Your task to perform on an android device: install app "Pinterest" Image 0: 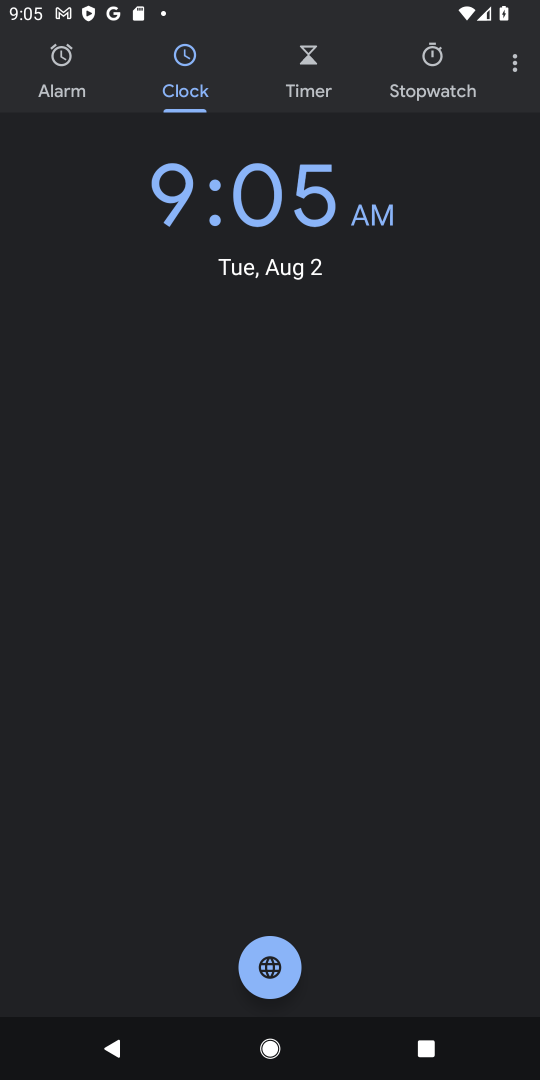
Step 0: press back button
Your task to perform on an android device: install app "Pinterest" Image 1: 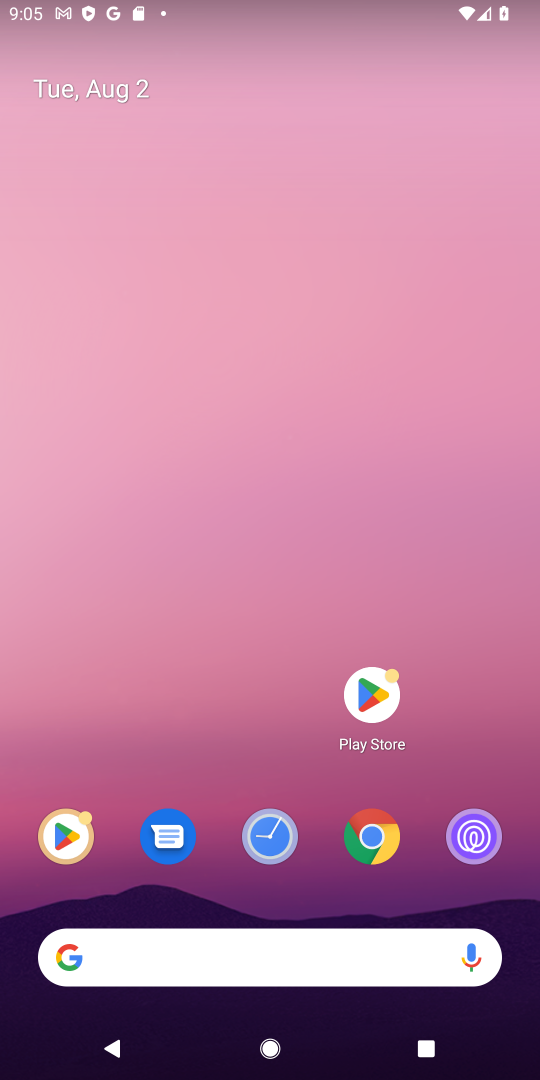
Step 1: drag from (253, 933) to (143, 362)
Your task to perform on an android device: install app "Pinterest" Image 2: 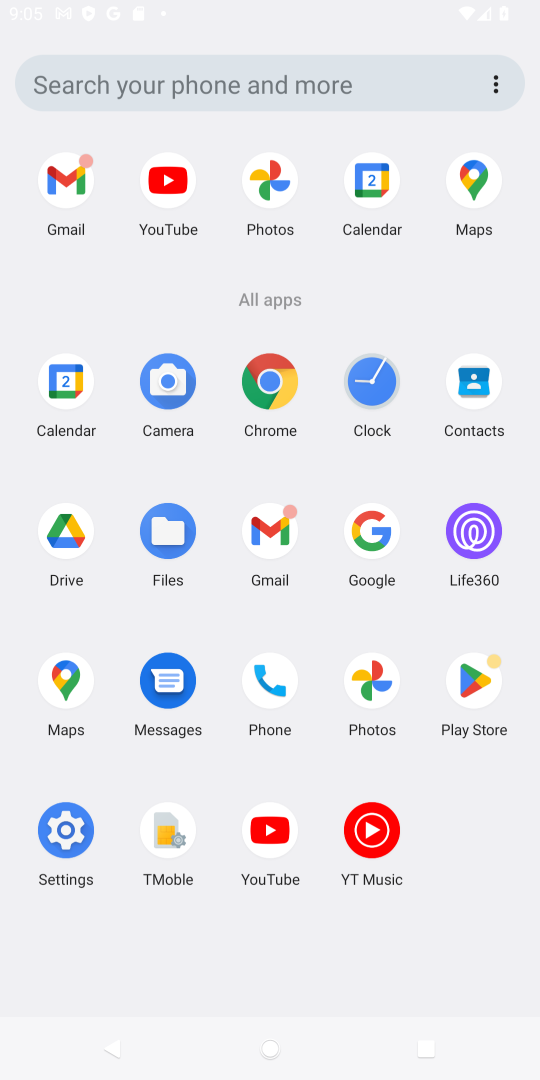
Step 2: drag from (285, 797) to (285, 288)
Your task to perform on an android device: install app "Pinterest" Image 3: 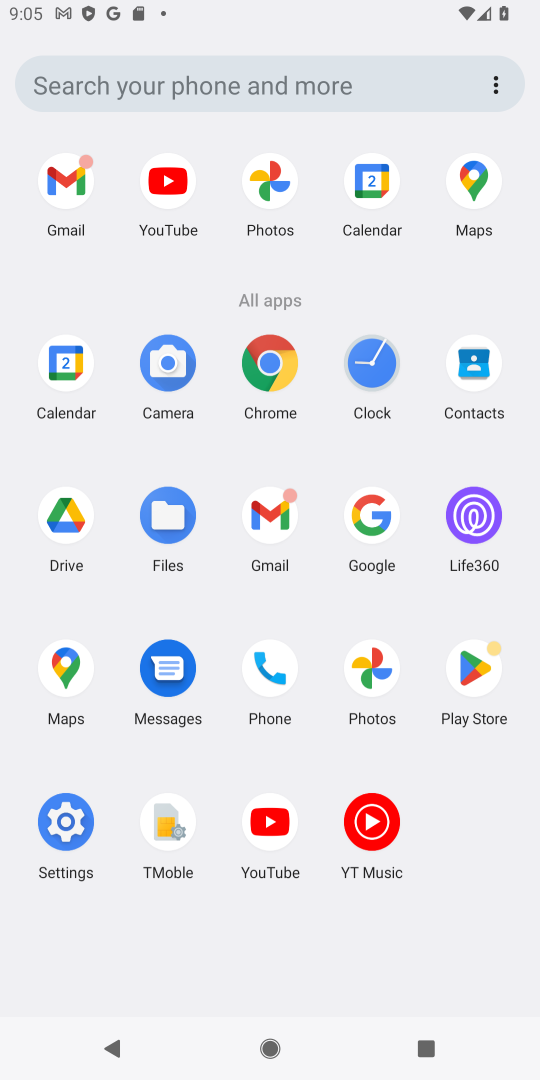
Step 3: drag from (262, 361) to (241, 150)
Your task to perform on an android device: install app "Pinterest" Image 4: 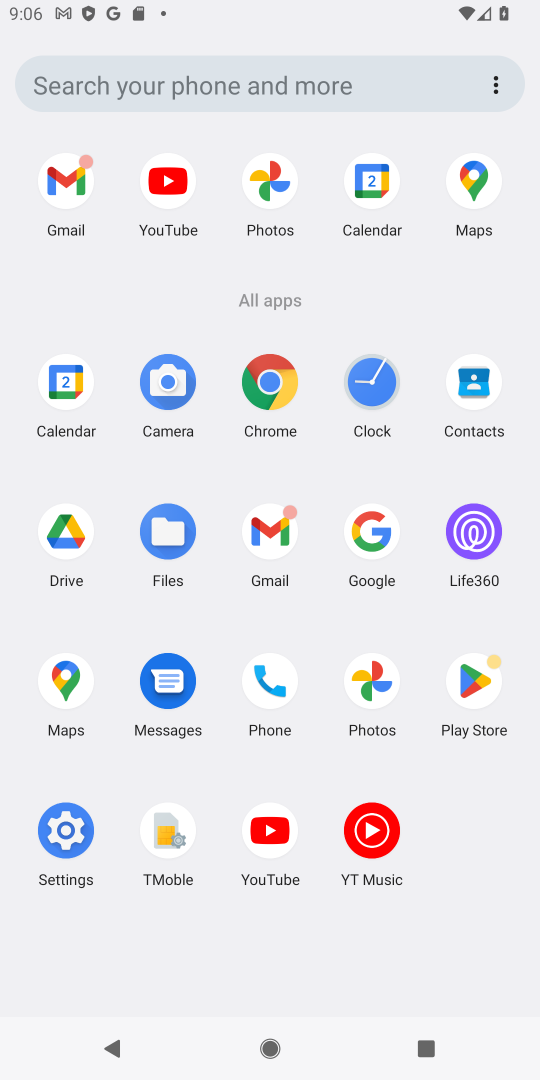
Step 4: click (465, 687)
Your task to perform on an android device: install app "Pinterest" Image 5: 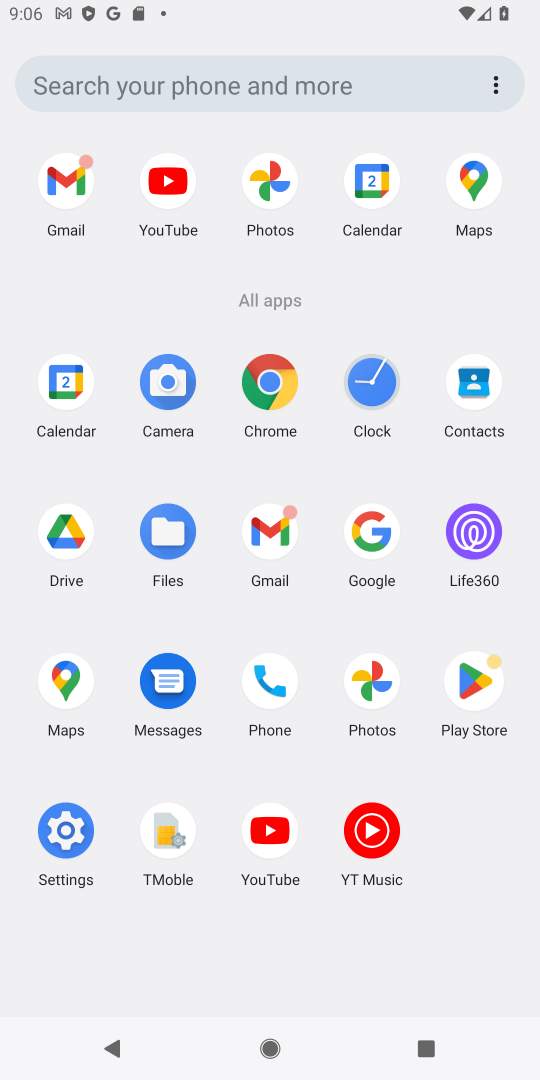
Step 5: click (467, 686)
Your task to perform on an android device: install app "Pinterest" Image 6: 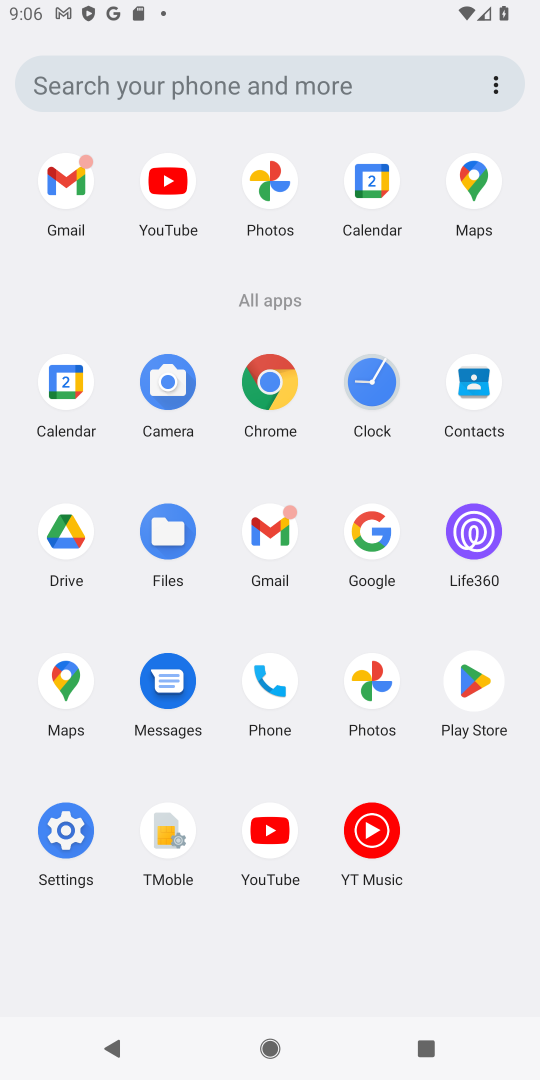
Step 6: click (468, 690)
Your task to perform on an android device: install app "Pinterest" Image 7: 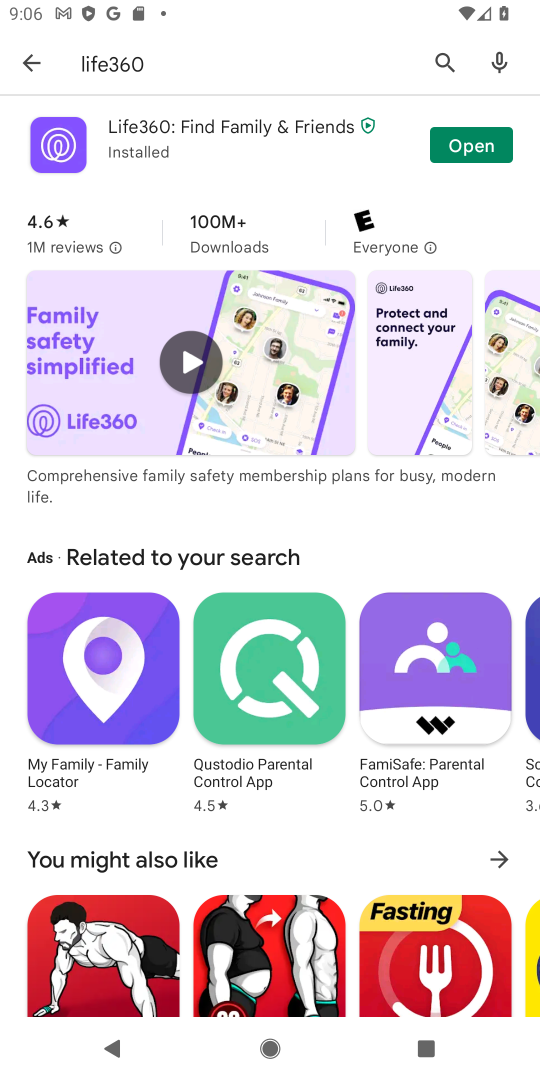
Step 7: click (468, 690)
Your task to perform on an android device: install app "Pinterest" Image 8: 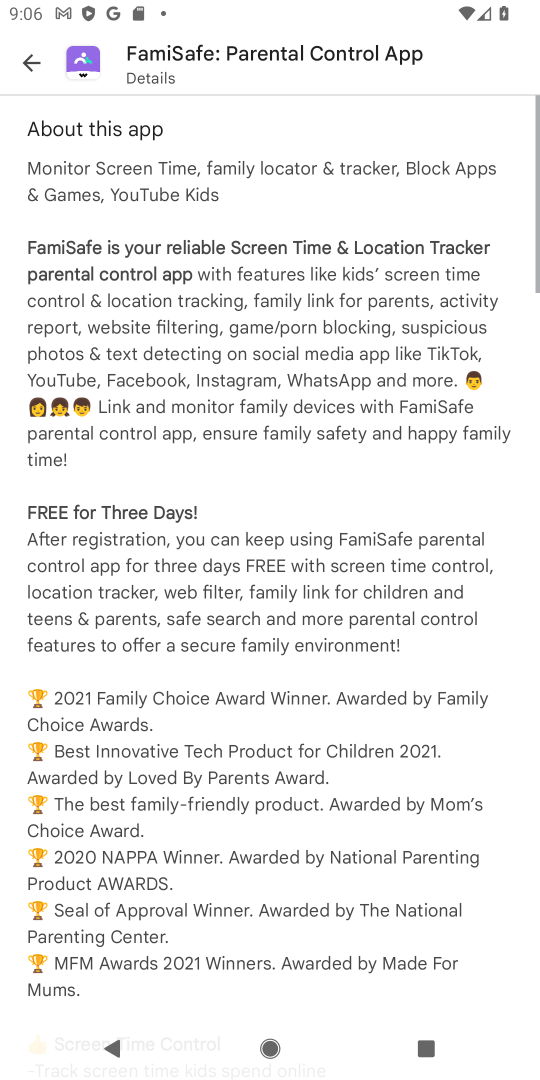
Step 8: click (23, 62)
Your task to perform on an android device: install app "Pinterest" Image 9: 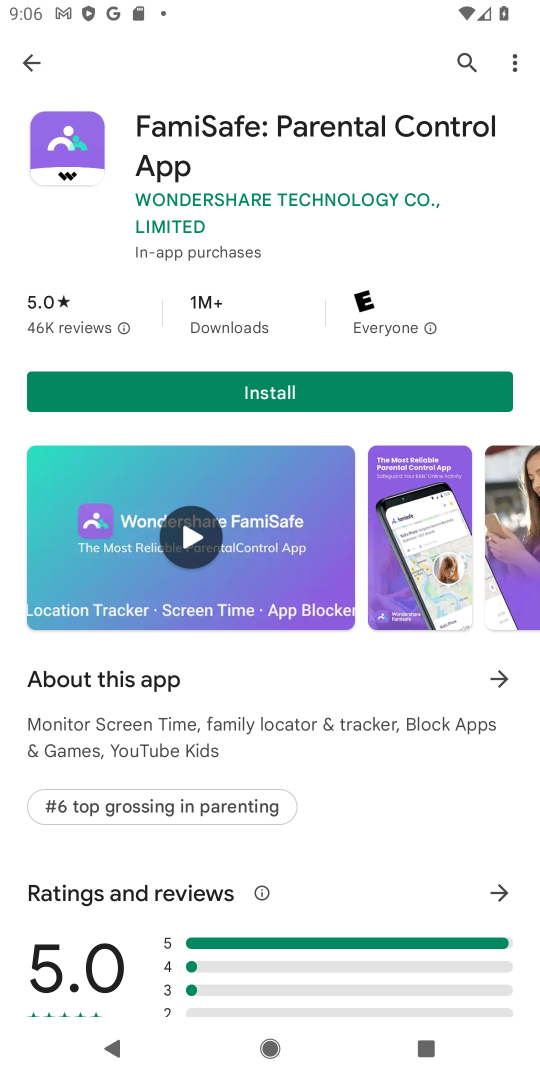
Step 9: click (21, 65)
Your task to perform on an android device: install app "Pinterest" Image 10: 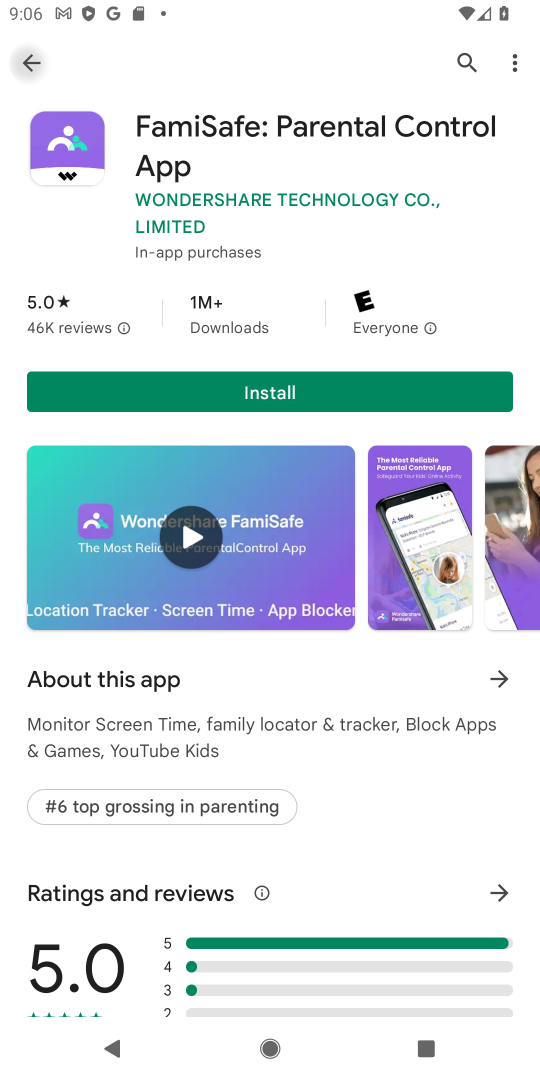
Step 10: click (25, 66)
Your task to perform on an android device: install app "Pinterest" Image 11: 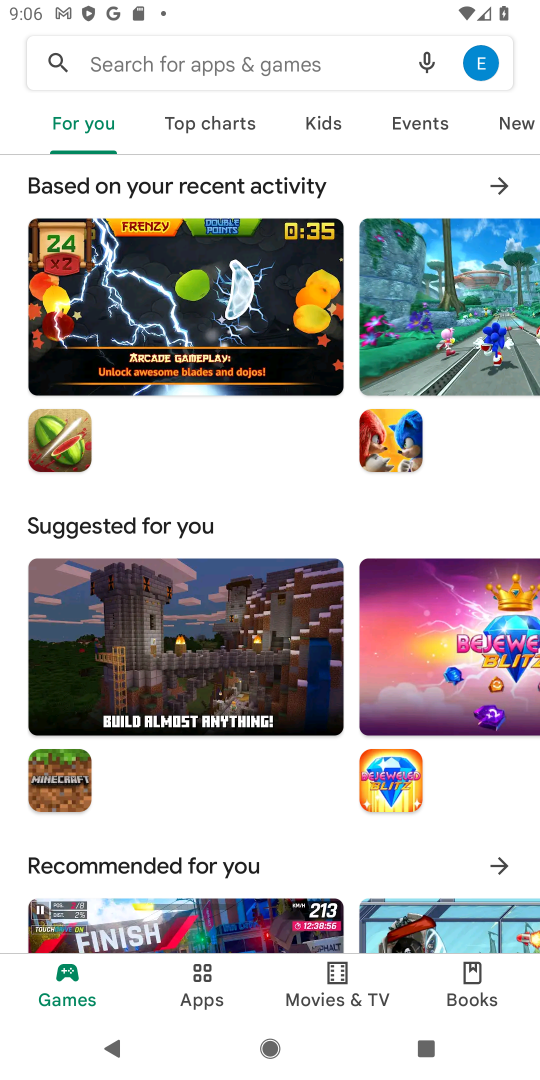
Step 11: click (138, 54)
Your task to perform on an android device: install app "Pinterest" Image 12: 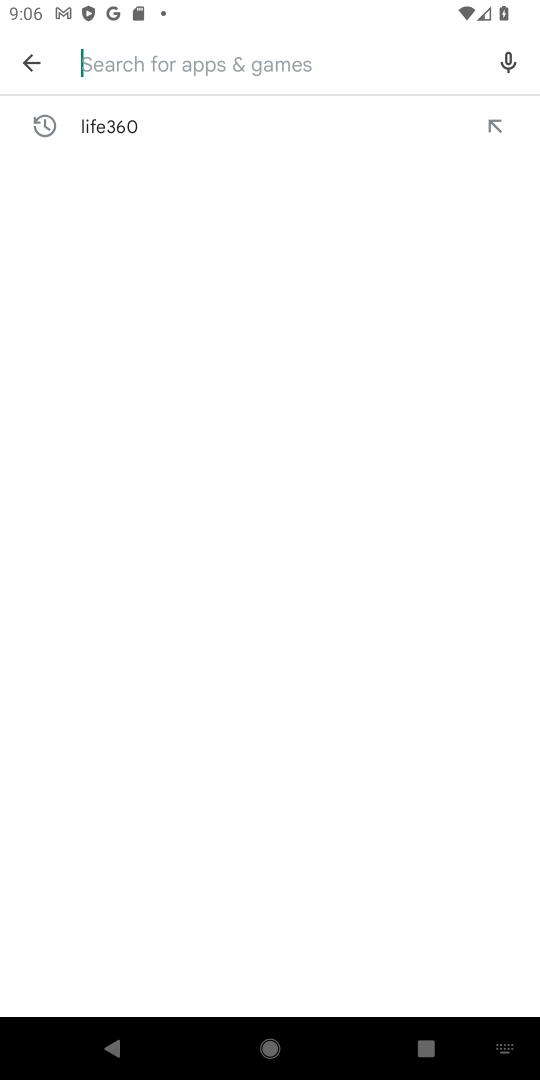
Step 12: type "pinterest"
Your task to perform on an android device: install app "Pinterest" Image 13: 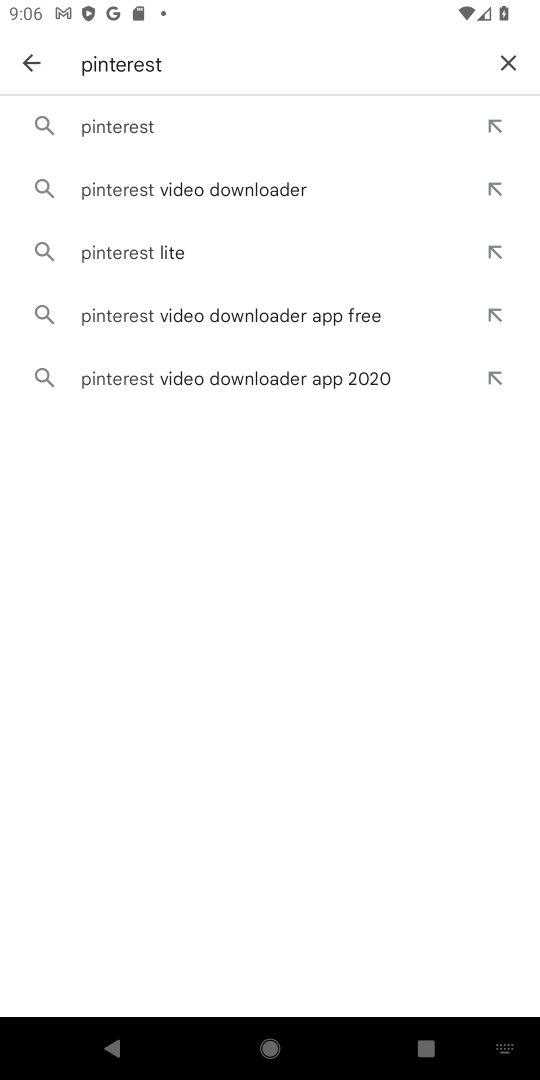
Step 13: click (117, 115)
Your task to perform on an android device: install app "Pinterest" Image 14: 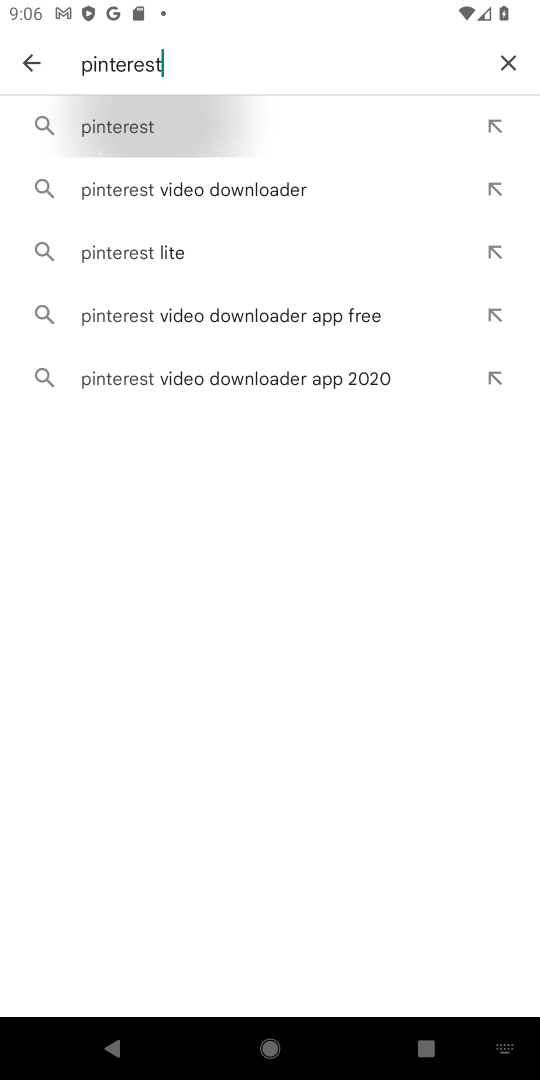
Step 14: click (117, 115)
Your task to perform on an android device: install app "Pinterest" Image 15: 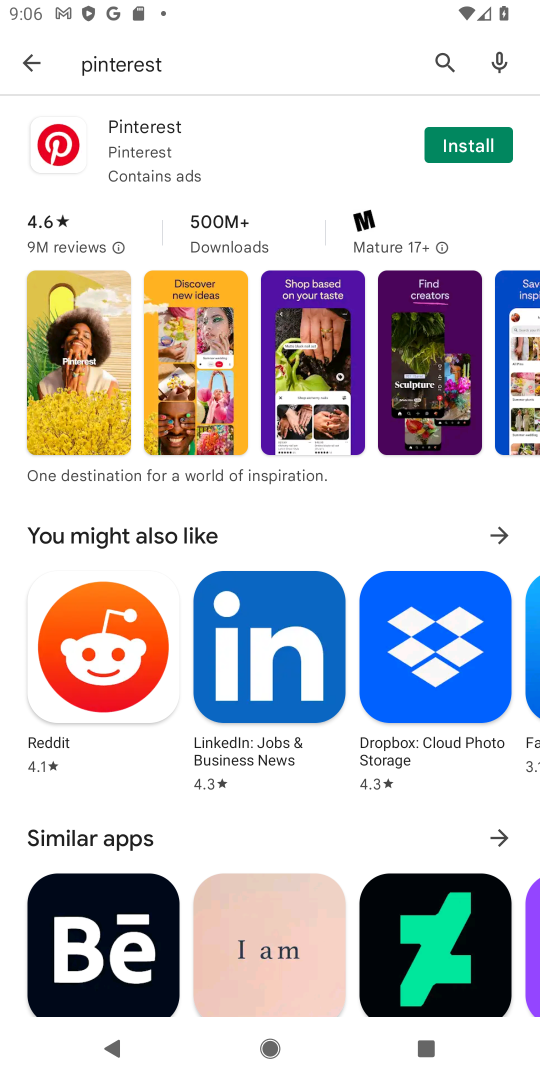
Step 15: click (458, 138)
Your task to perform on an android device: install app "Pinterest" Image 16: 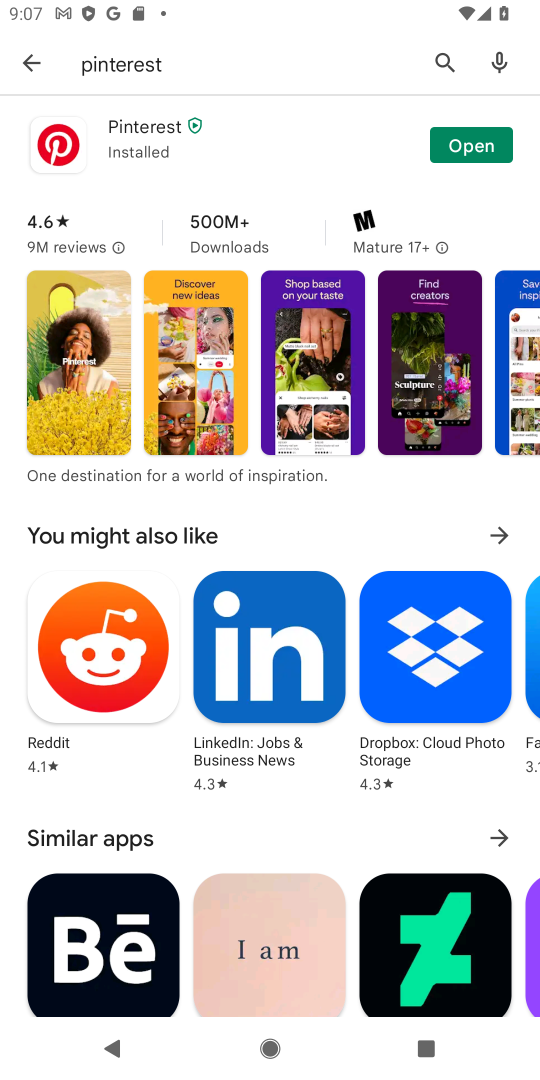
Step 16: click (449, 128)
Your task to perform on an android device: install app "Pinterest" Image 17: 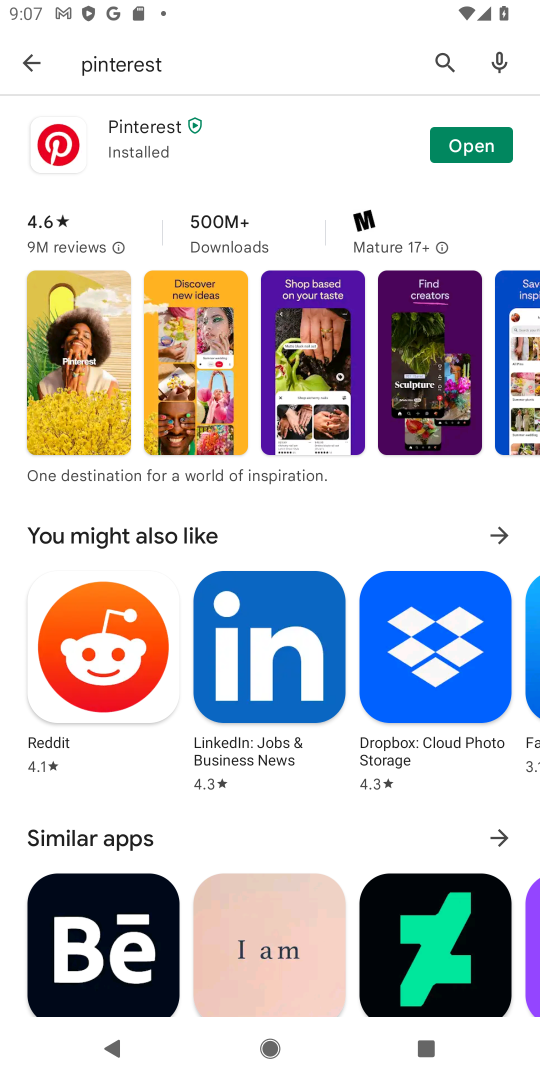
Step 17: click (479, 152)
Your task to perform on an android device: install app "Pinterest" Image 18: 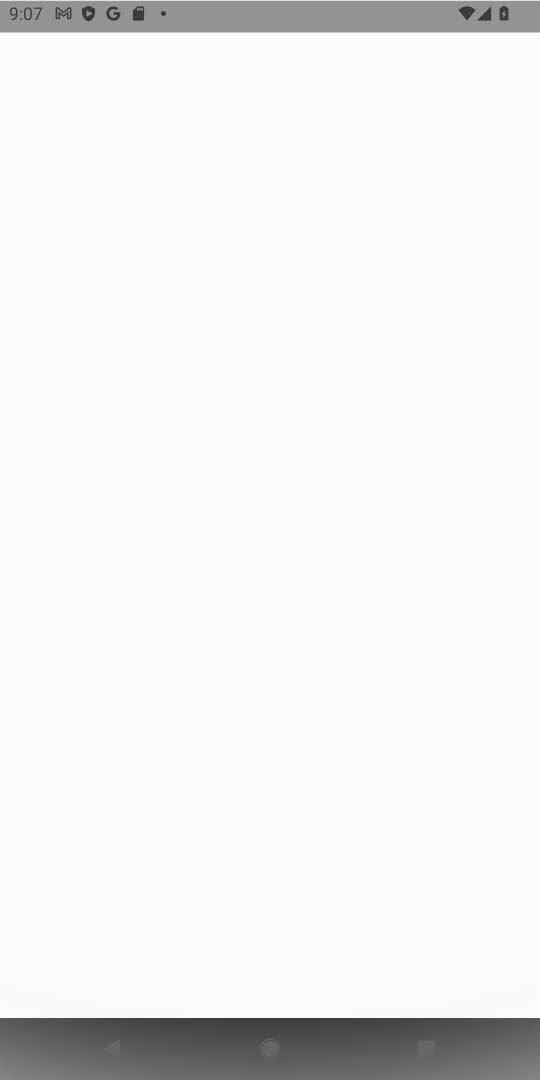
Step 18: click (472, 151)
Your task to perform on an android device: install app "Pinterest" Image 19: 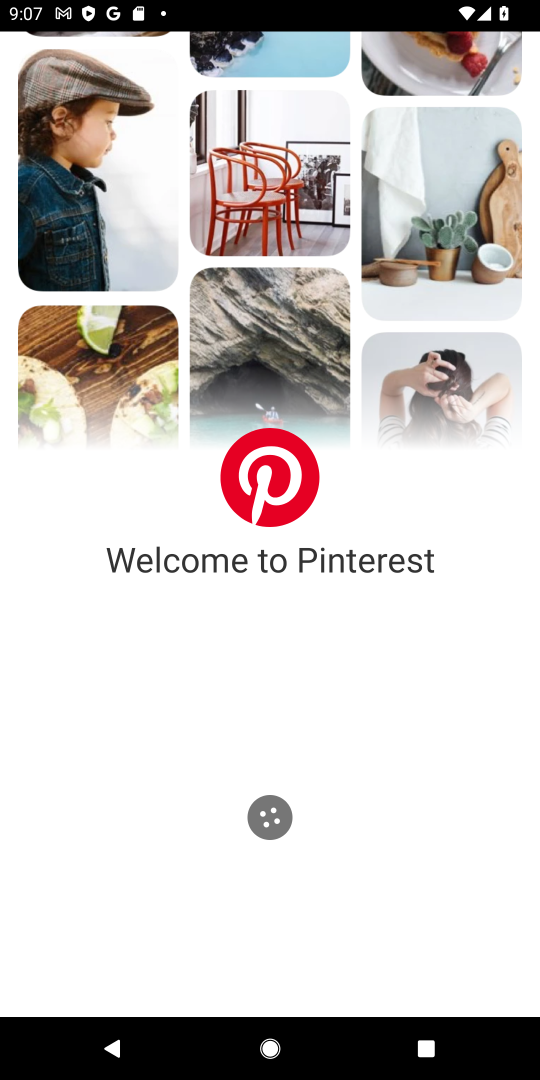
Step 19: task complete